Your task to perform on an android device: Open calendar and show me the fourth week of next month Image 0: 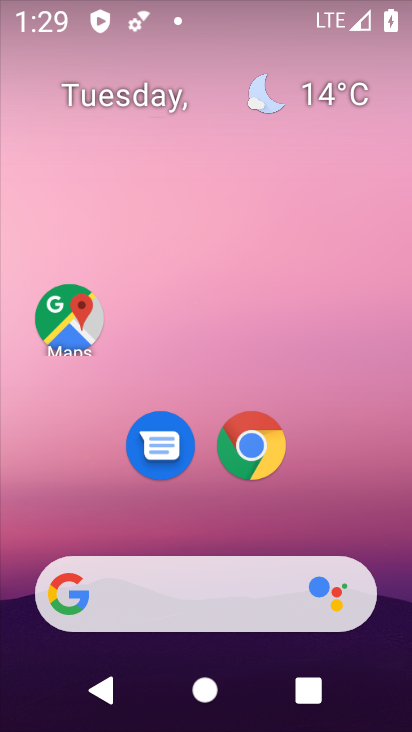
Step 0: drag from (355, 497) to (284, 60)
Your task to perform on an android device: Open calendar and show me the fourth week of next month Image 1: 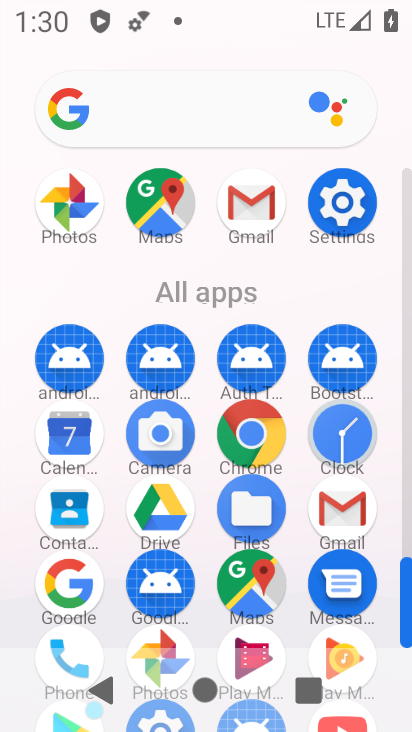
Step 1: click (79, 445)
Your task to perform on an android device: Open calendar and show me the fourth week of next month Image 2: 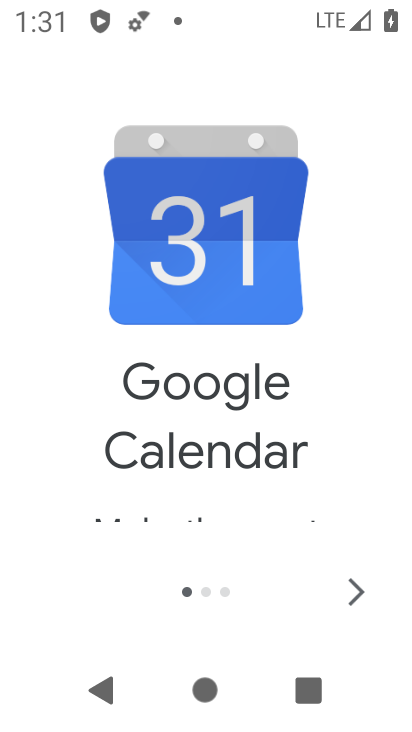
Step 2: click (354, 589)
Your task to perform on an android device: Open calendar and show me the fourth week of next month Image 3: 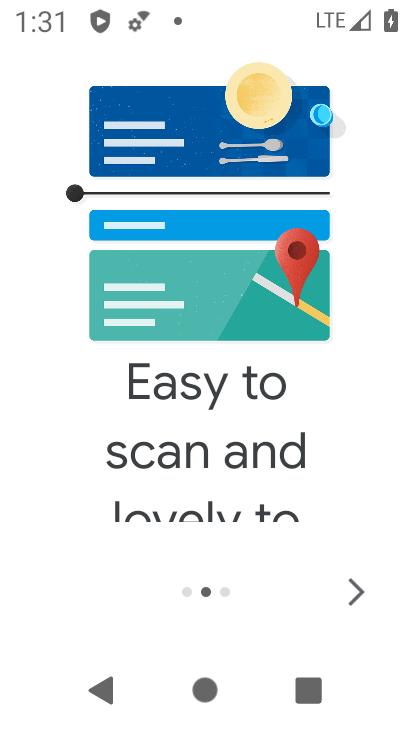
Step 3: click (352, 574)
Your task to perform on an android device: Open calendar and show me the fourth week of next month Image 4: 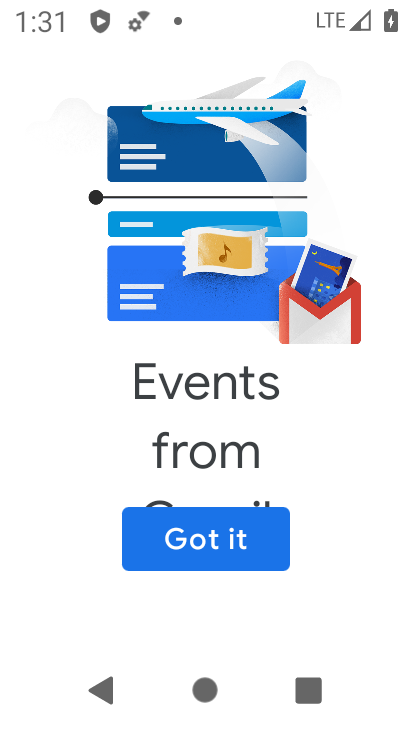
Step 4: click (259, 547)
Your task to perform on an android device: Open calendar and show me the fourth week of next month Image 5: 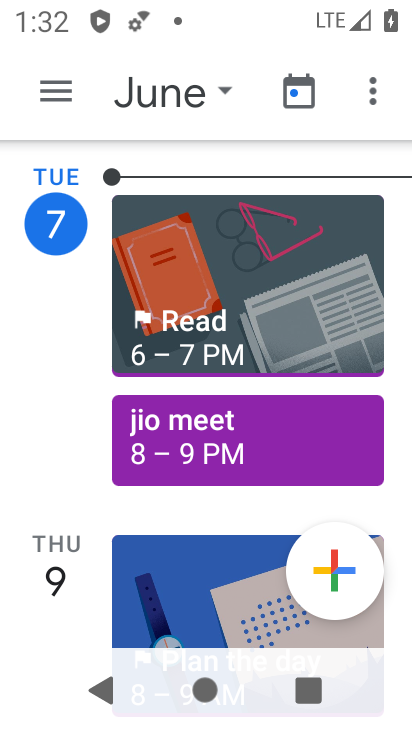
Step 5: click (213, 86)
Your task to perform on an android device: Open calendar and show me the fourth week of next month Image 6: 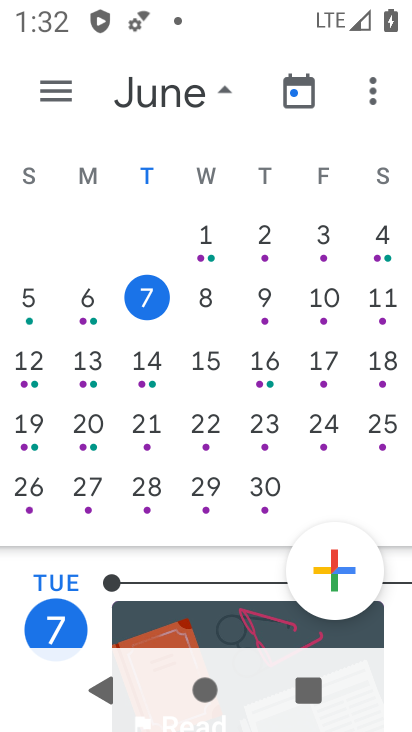
Step 6: drag from (404, 329) to (46, 317)
Your task to perform on an android device: Open calendar and show me the fourth week of next month Image 7: 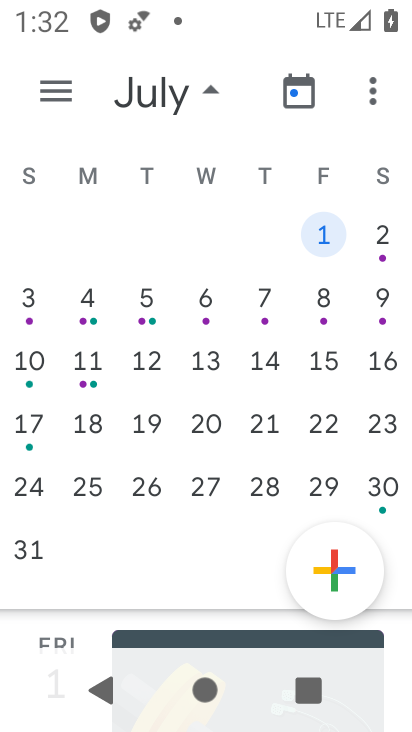
Step 7: click (322, 438)
Your task to perform on an android device: Open calendar and show me the fourth week of next month Image 8: 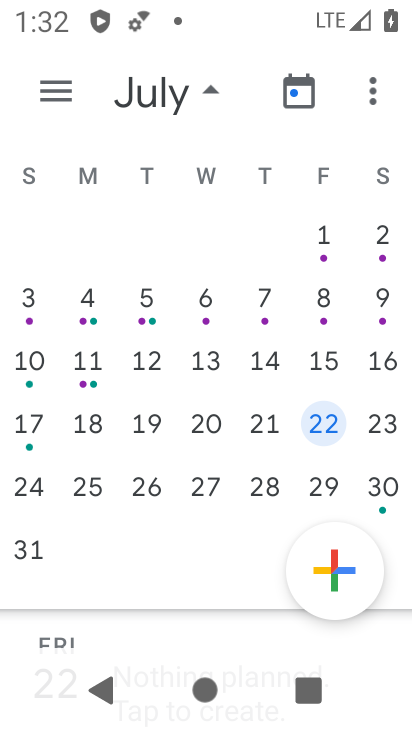
Step 8: click (310, 422)
Your task to perform on an android device: Open calendar and show me the fourth week of next month Image 9: 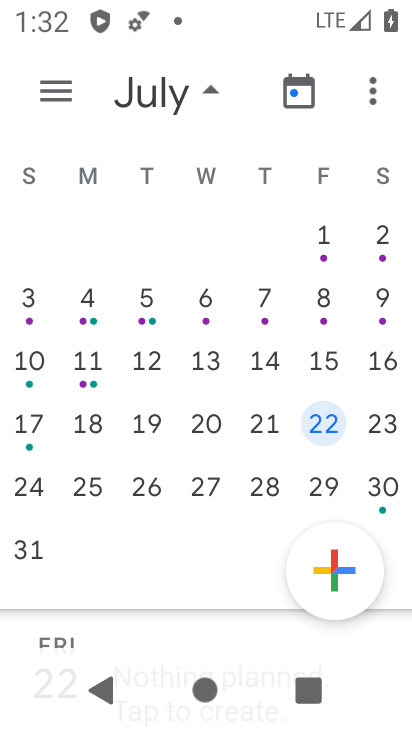
Step 9: click (310, 422)
Your task to perform on an android device: Open calendar and show me the fourth week of next month Image 10: 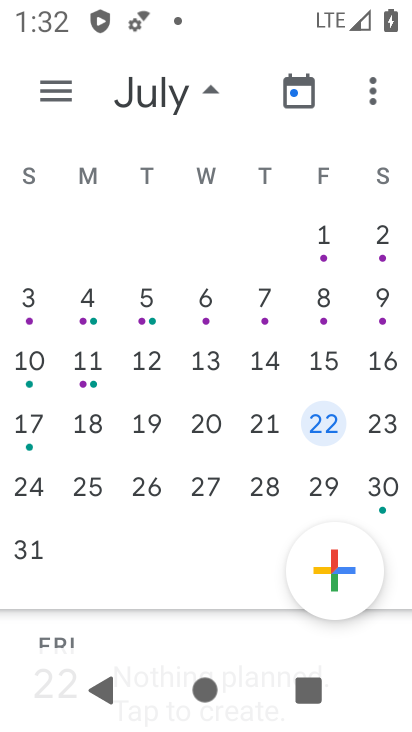
Step 10: click (310, 422)
Your task to perform on an android device: Open calendar and show me the fourth week of next month Image 11: 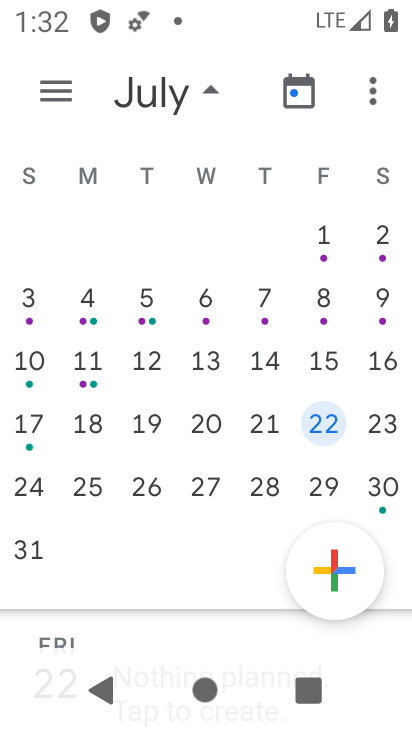
Step 11: click (310, 422)
Your task to perform on an android device: Open calendar and show me the fourth week of next month Image 12: 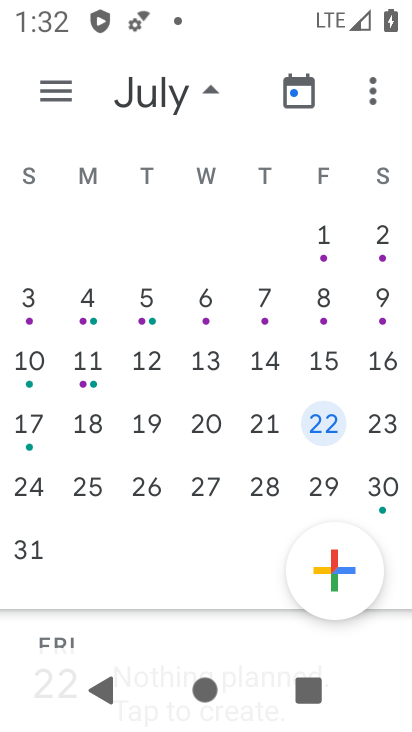
Step 12: click (310, 422)
Your task to perform on an android device: Open calendar and show me the fourth week of next month Image 13: 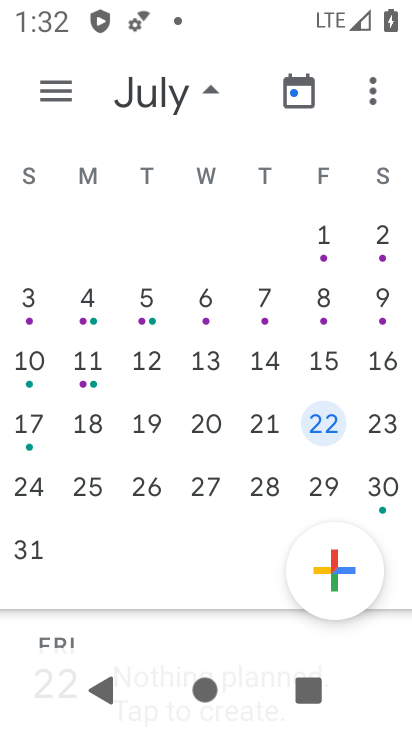
Step 13: click (50, 77)
Your task to perform on an android device: Open calendar and show me the fourth week of next month Image 14: 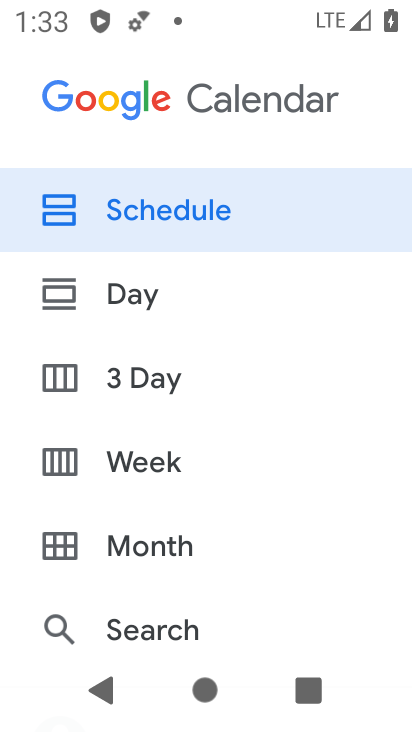
Step 14: click (179, 459)
Your task to perform on an android device: Open calendar and show me the fourth week of next month Image 15: 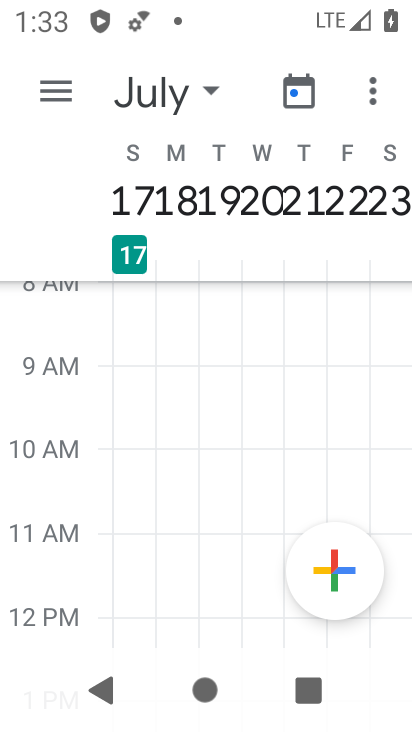
Step 15: task complete